Your task to perform on an android device: check android version Image 0: 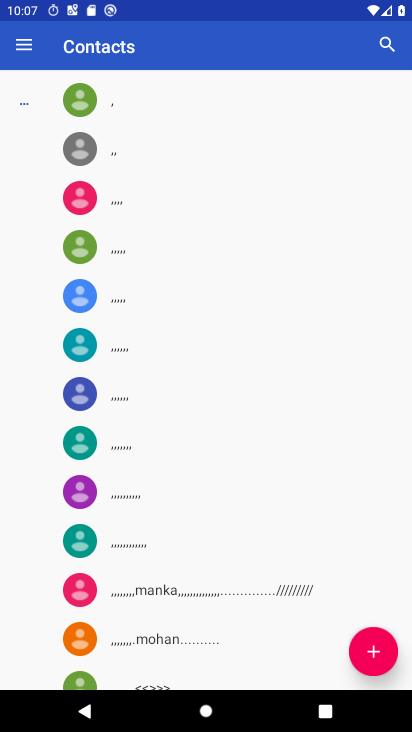
Step 0: press home button
Your task to perform on an android device: check android version Image 1: 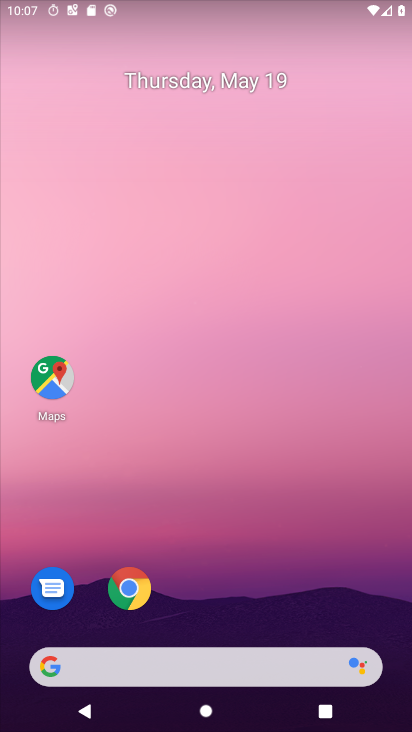
Step 1: drag from (166, 659) to (320, 37)
Your task to perform on an android device: check android version Image 2: 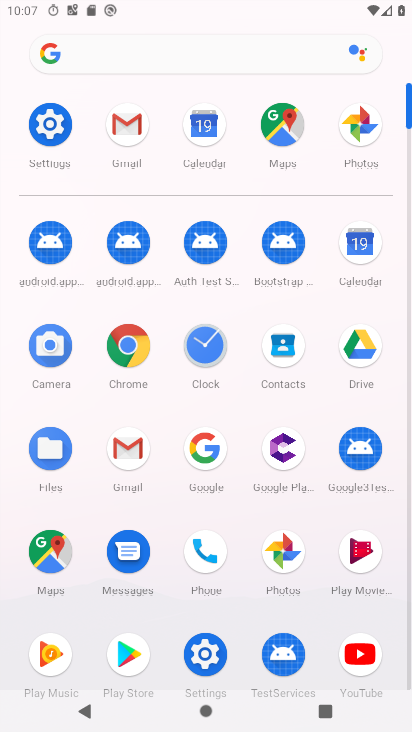
Step 2: click (57, 128)
Your task to perform on an android device: check android version Image 3: 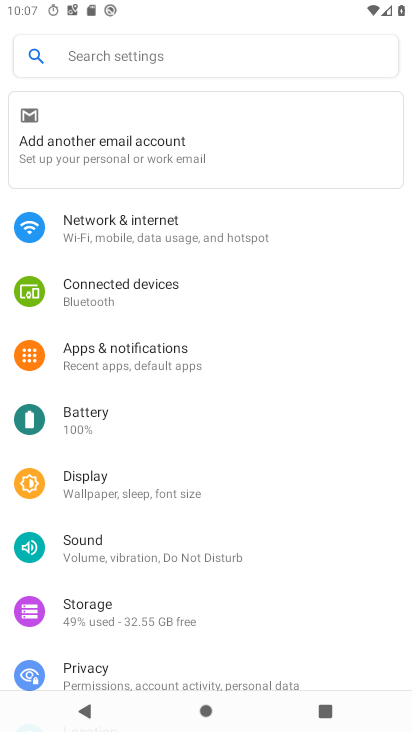
Step 3: drag from (228, 633) to (385, 168)
Your task to perform on an android device: check android version Image 4: 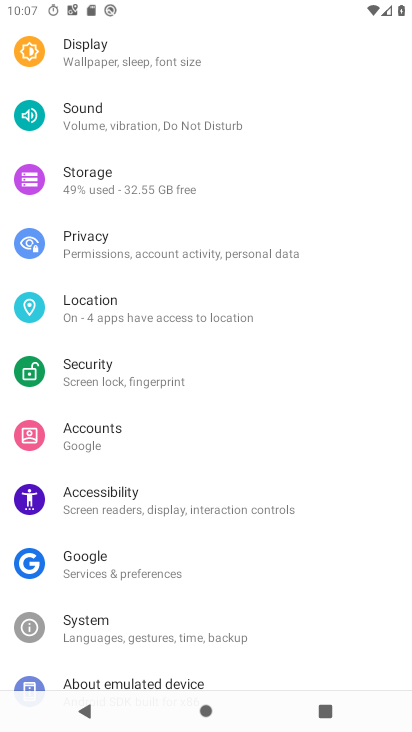
Step 4: drag from (222, 550) to (370, 218)
Your task to perform on an android device: check android version Image 5: 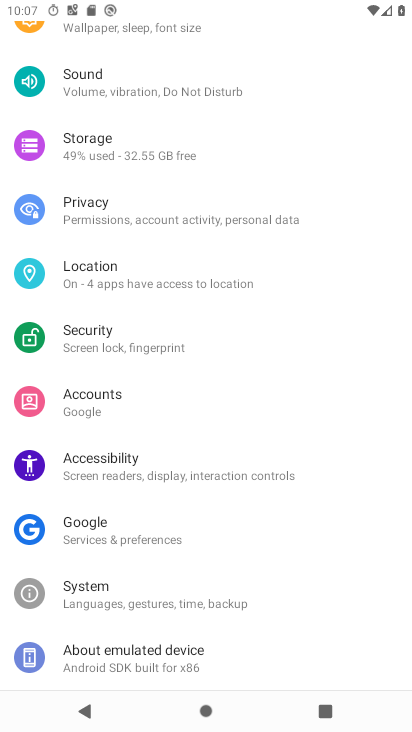
Step 5: click (176, 656)
Your task to perform on an android device: check android version Image 6: 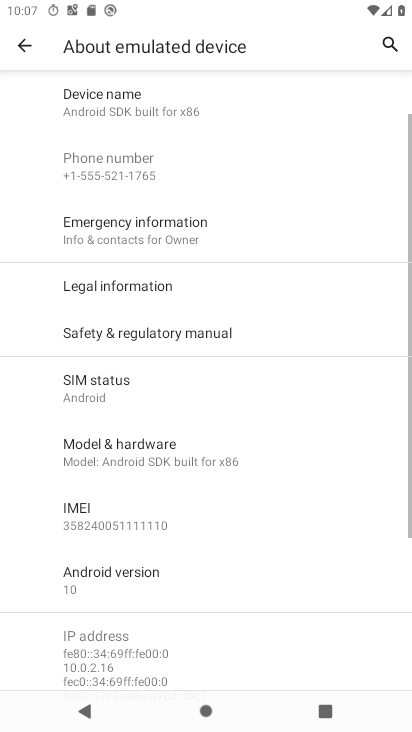
Step 6: click (141, 571)
Your task to perform on an android device: check android version Image 7: 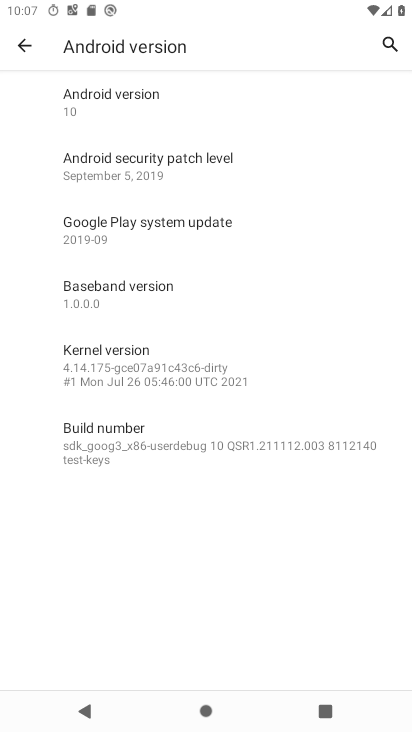
Step 7: task complete